Your task to perform on an android device: Show me recent news Image 0: 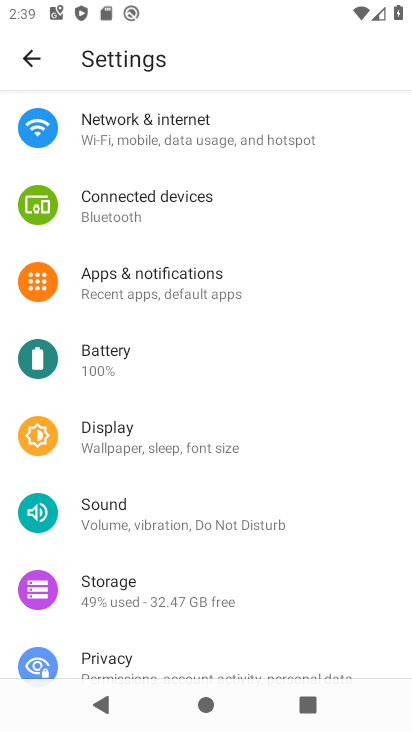
Step 0: press home button
Your task to perform on an android device: Show me recent news Image 1: 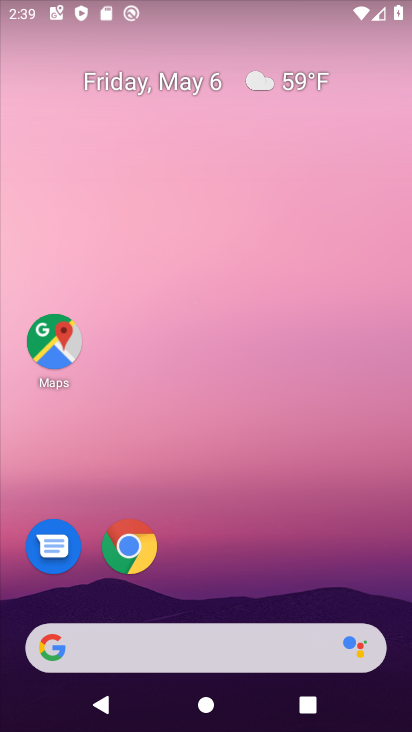
Step 1: drag from (280, 531) to (263, 112)
Your task to perform on an android device: Show me recent news Image 2: 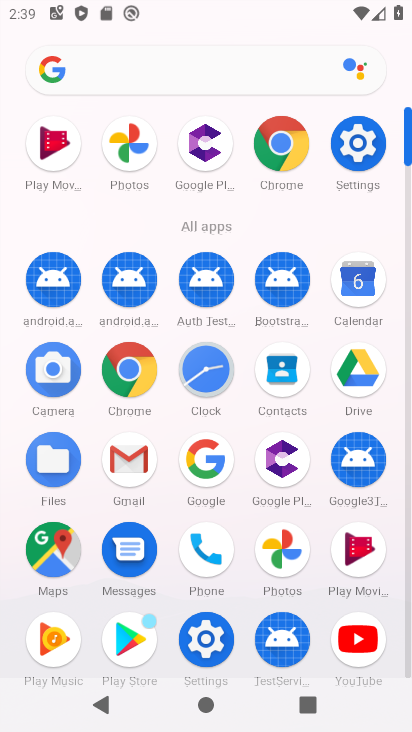
Step 2: click (274, 139)
Your task to perform on an android device: Show me recent news Image 3: 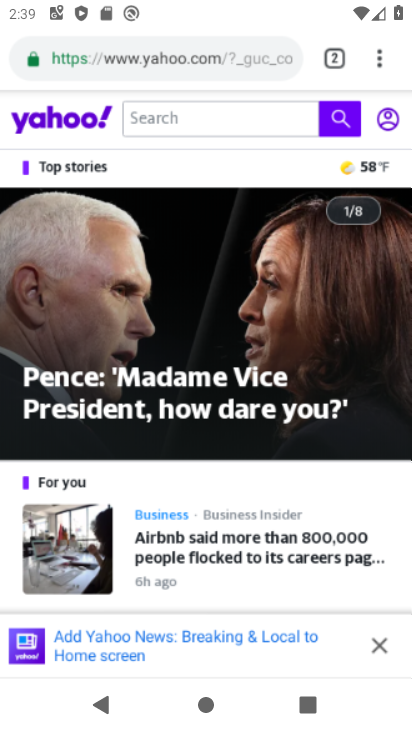
Step 3: click (340, 58)
Your task to perform on an android device: Show me recent news Image 4: 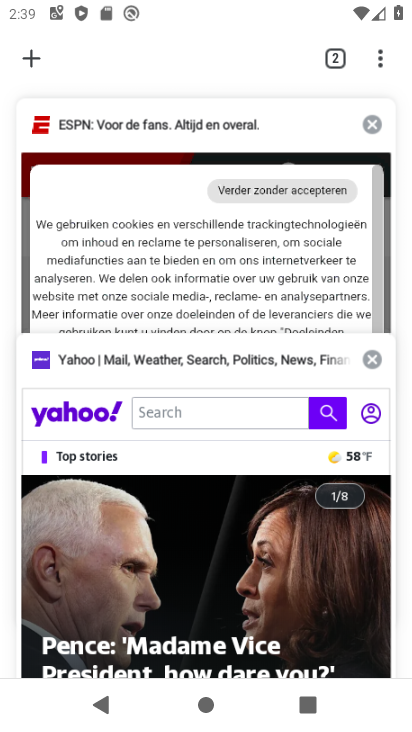
Step 4: click (24, 61)
Your task to perform on an android device: Show me recent news Image 5: 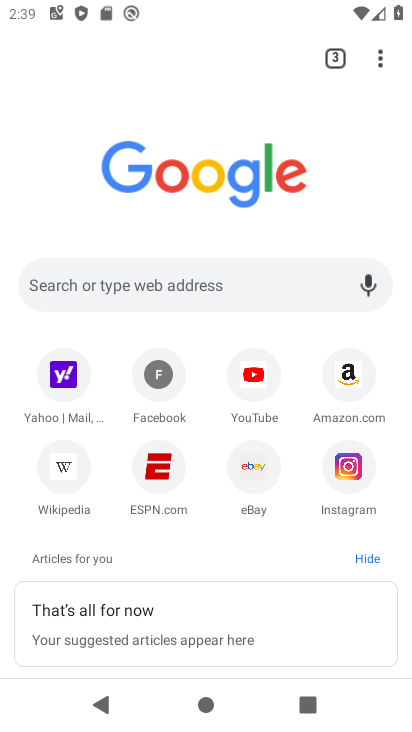
Step 5: click (220, 285)
Your task to perform on an android device: Show me recent news Image 6: 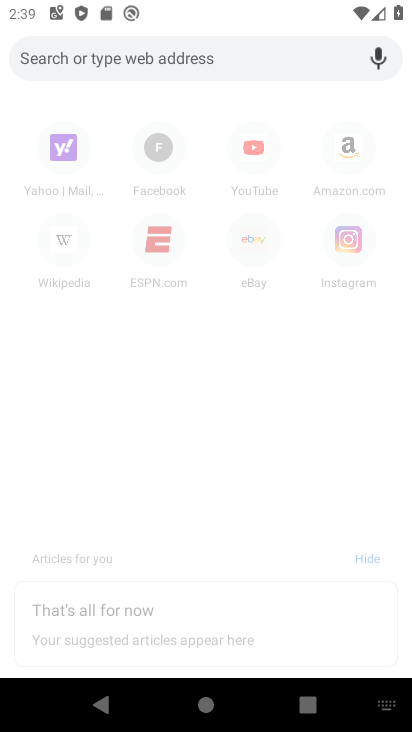
Step 6: type "recent news"
Your task to perform on an android device: Show me recent news Image 7: 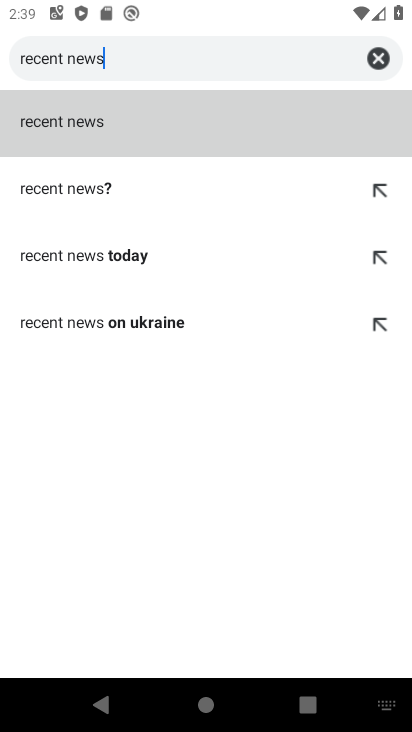
Step 7: click (147, 122)
Your task to perform on an android device: Show me recent news Image 8: 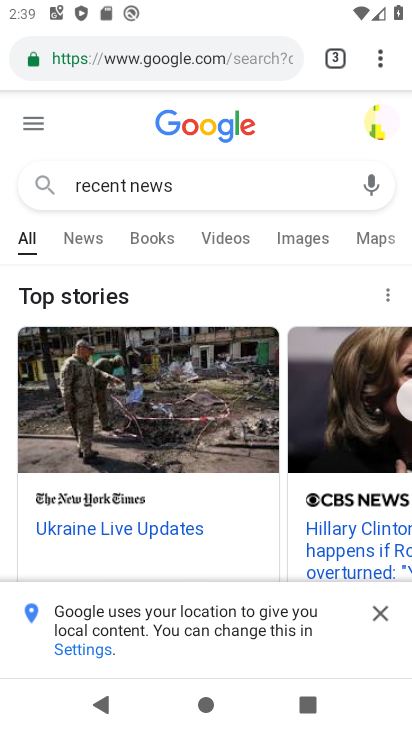
Step 8: click (86, 237)
Your task to perform on an android device: Show me recent news Image 9: 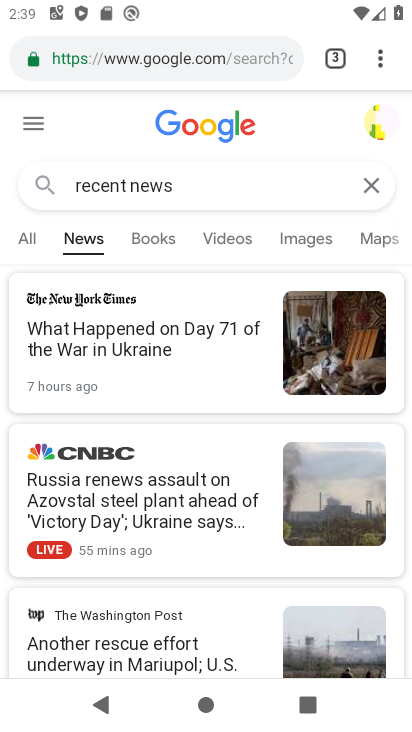
Step 9: click (225, 563)
Your task to perform on an android device: Show me recent news Image 10: 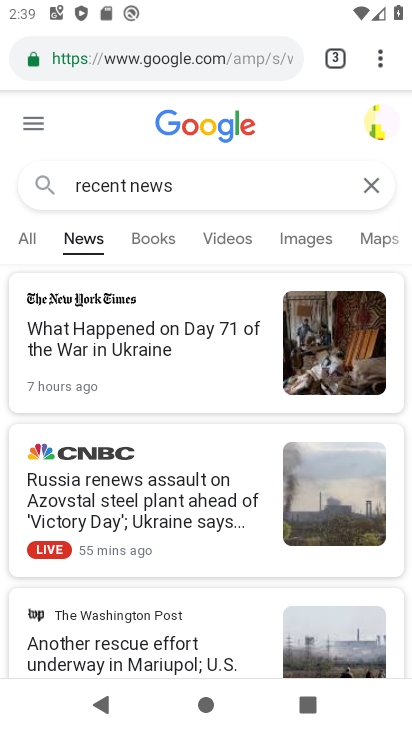
Step 10: task complete